Your task to perform on an android device: Search for sushi restaurants on Maps Image 0: 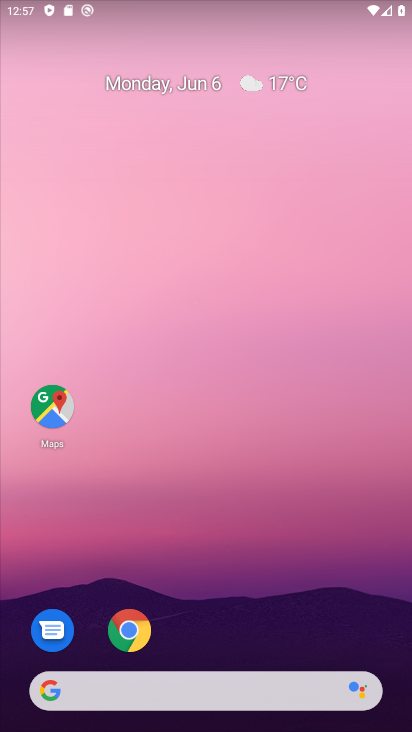
Step 0: drag from (253, 549) to (262, 12)
Your task to perform on an android device: Search for sushi restaurants on Maps Image 1: 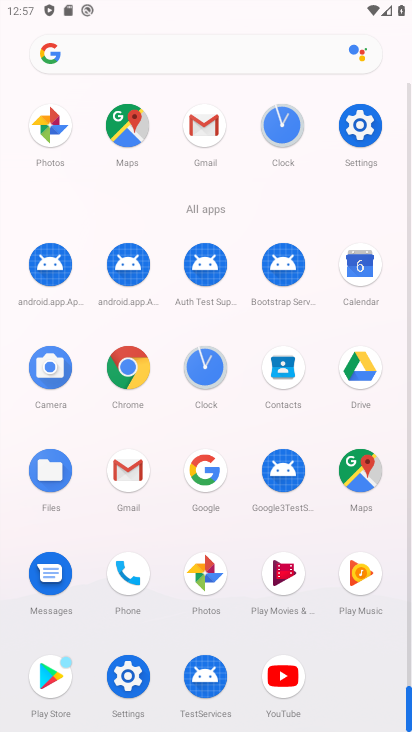
Step 1: click (366, 472)
Your task to perform on an android device: Search for sushi restaurants on Maps Image 2: 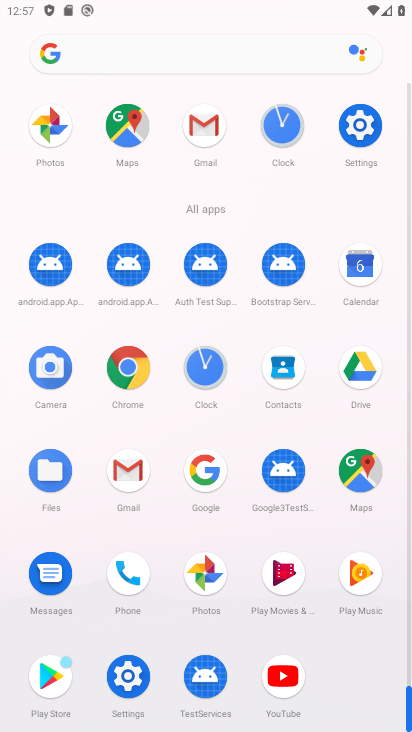
Step 2: click (366, 472)
Your task to perform on an android device: Search for sushi restaurants on Maps Image 3: 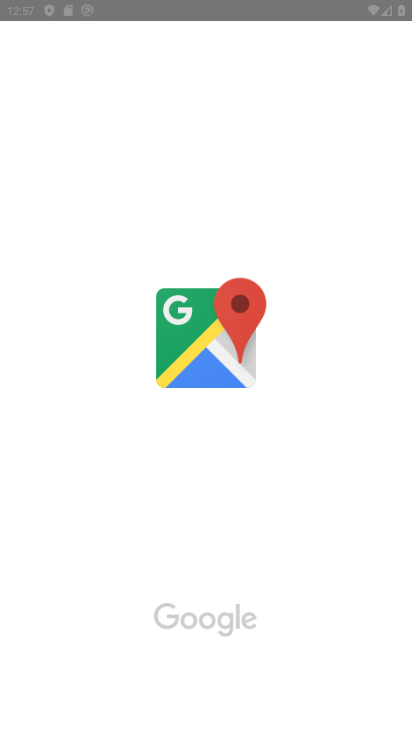
Step 3: click (365, 474)
Your task to perform on an android device: Search for sushi restaurants on Maps Image 4: 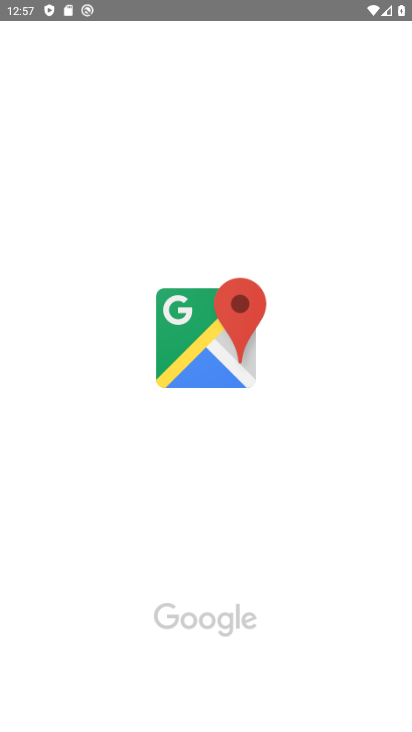
Step 4: click (349, 477)
Your task to perform on an android device: Search for sushi restaurants on Maps Image 5: 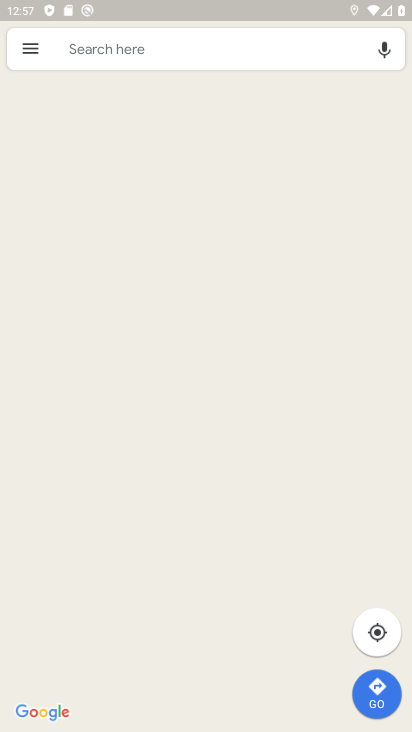
Step 5: click (80, 42)
Your task to perform on an android device: Search for sushi restaurants on Maps Image 6: 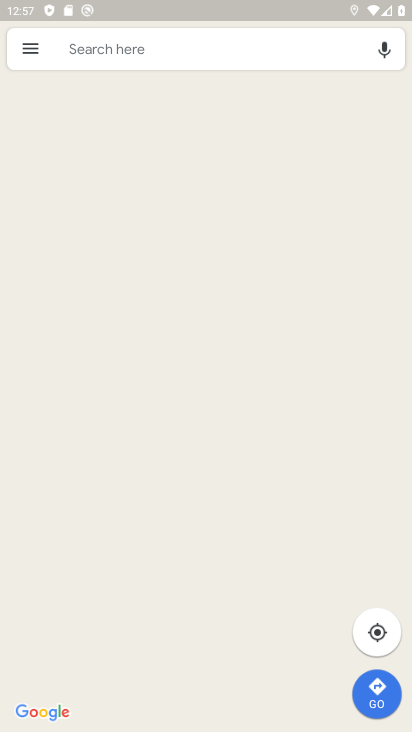
Step 6: click (80, 42)
Your task to perform on an android device: Search for sushi restaurants on Maps Image 7: 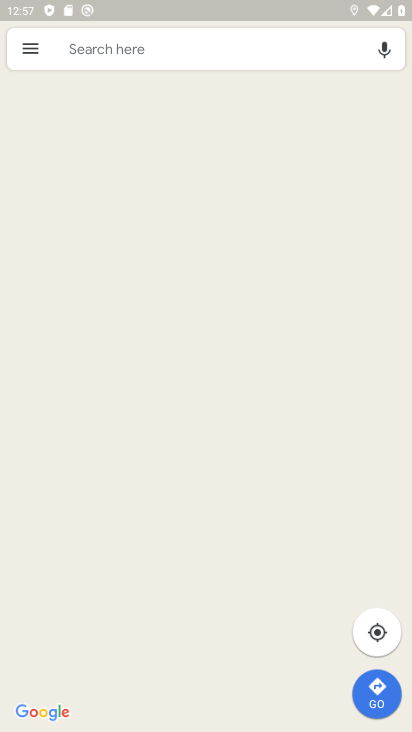
Step 7: click (80, 42)
Your task to perform on an android device: Search for sushi restaurants on Maps Image 8: 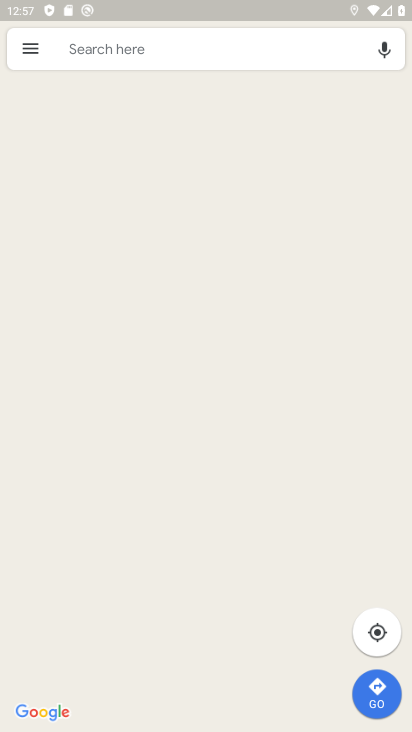
Step 8: drag from (82, 42) to (117, 56)
Your task to perform on an android device: Search for sushi restaurants on Maps Image 9: 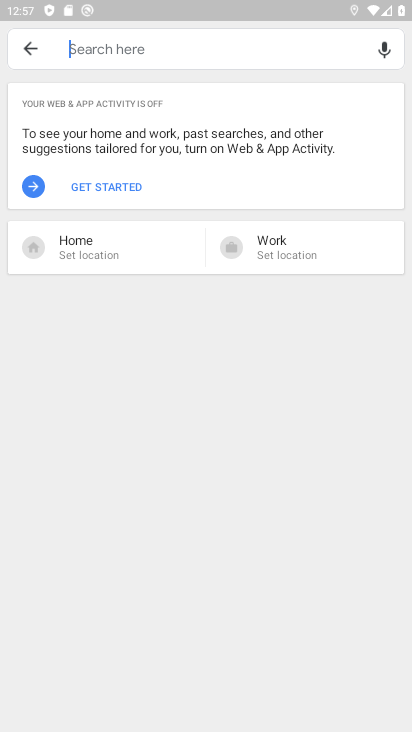
Step 9: click (117, 50)
Your task to perform on an android device: Search for sushi restaurants on Maps Image 10: 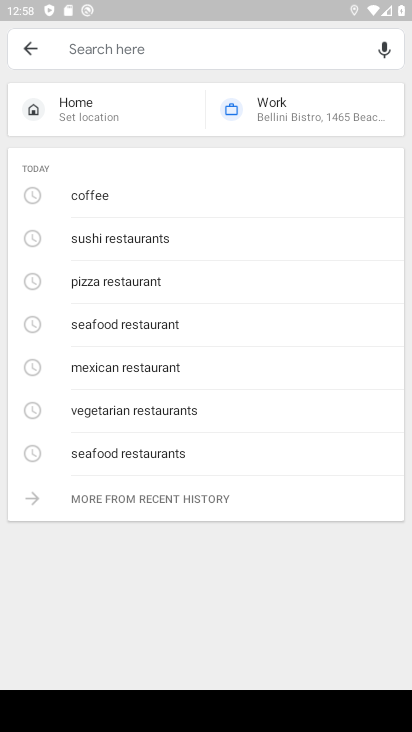
Step 10: type "sushi restaurants"
Your task to perform on an android device: Search for sushi restaurants on Maps Image 11: 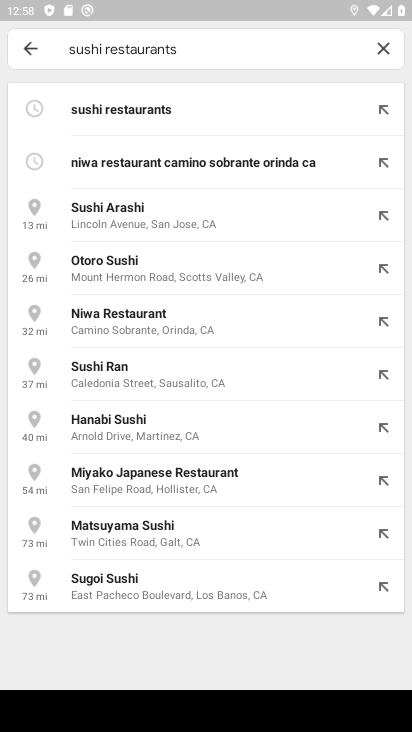
Step 11: click (126, 242)
Your task to perform on an android device: Search for sushi restaurants on Maps Image 12: 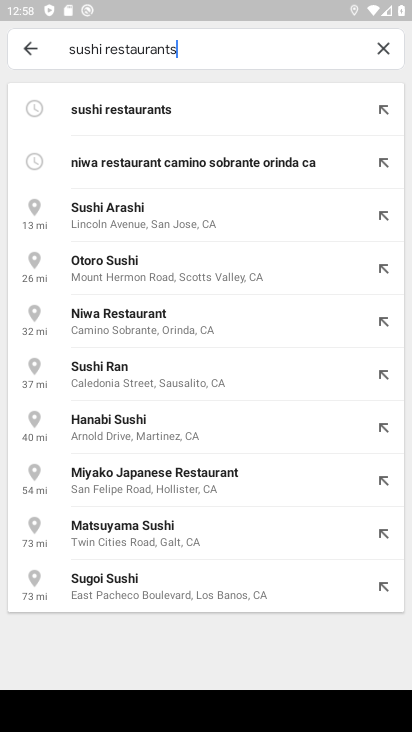
Step 12: click (133, 107)
Your task to perform on an android device: Search for sushi restaurants on Maps Image 13: 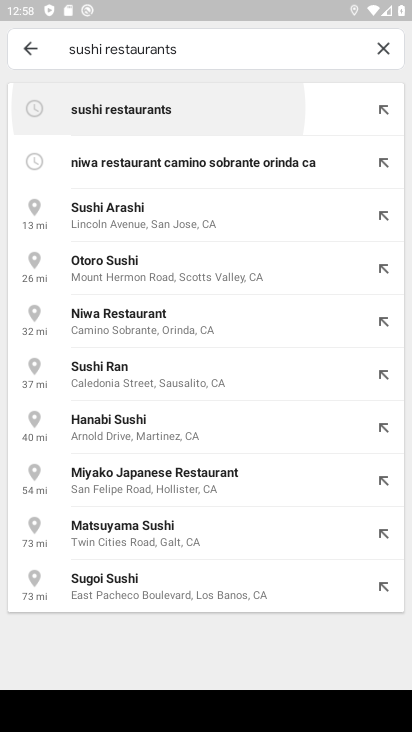
Step 13: click (133, 107)
Your task to perform on an android device: Search for sushi restaurants on Maps Image 14: 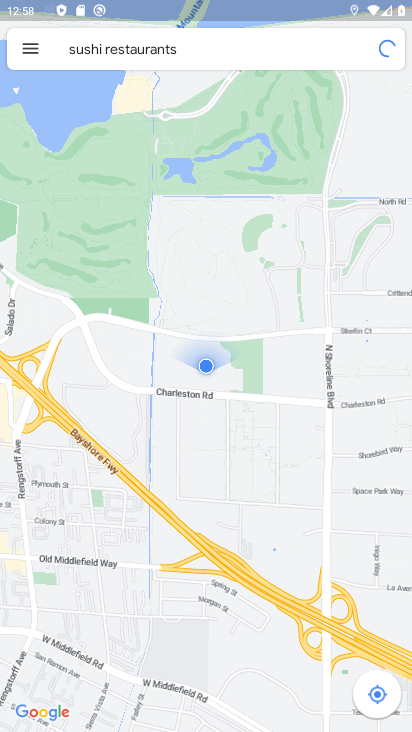
Step 14: task complete